Your task to perform on an android device: Go to settings Image 0: 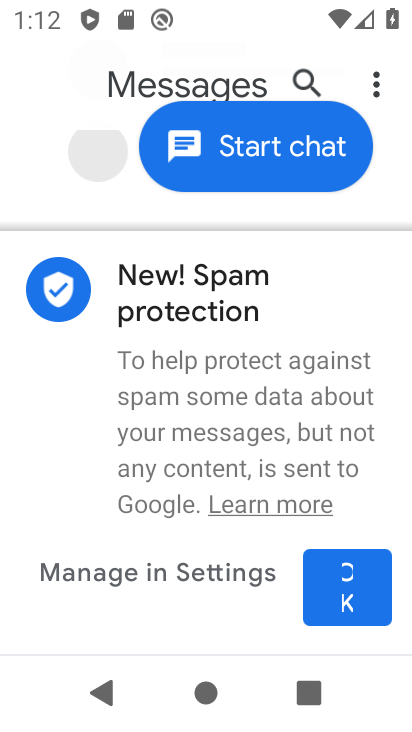
Step 0: press home button
Your task to perform on an android device: Go to settings Image 1: 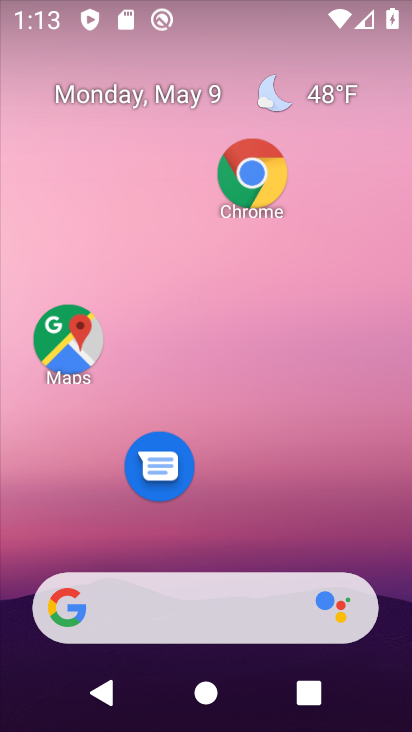
Step 1: drag from (245, 536) to (197, 132)
Your task to perform on an android device: Go to settings Image 2: 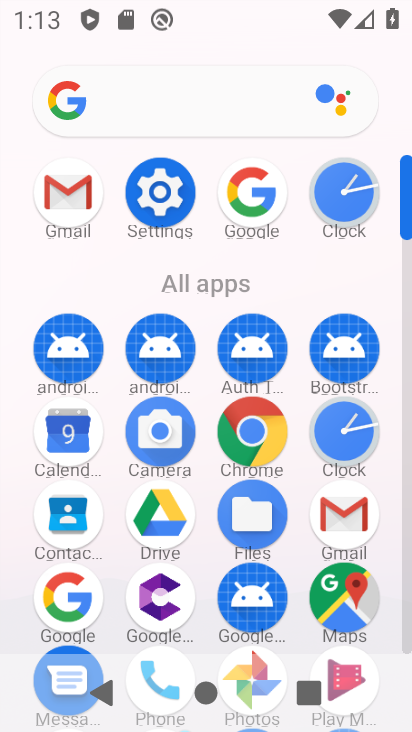
Step 2: click (160, 185)
Your task to perform on an android device: Go to settings Image 3: 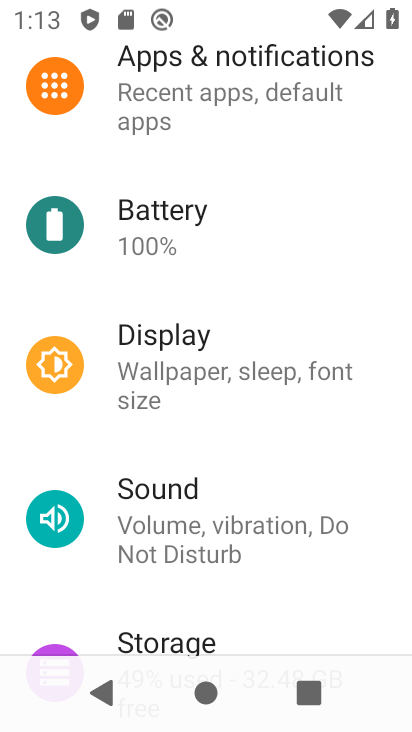
Step 3: task complete